Your task to perform on an android device: check data usage Image 0: 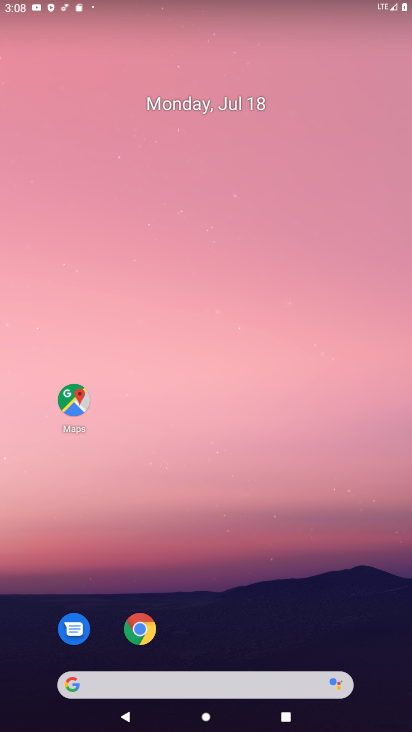
Step 0: drag from (192, 634) to (196, 0)
Your task to perform on an android device: check data usage Image 1: 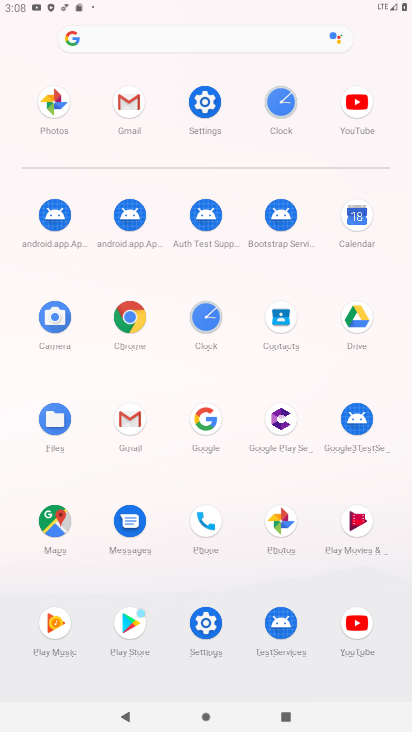
Step 1: click (216, 631)
Your task to perform on an android device: check data usage Image 2: 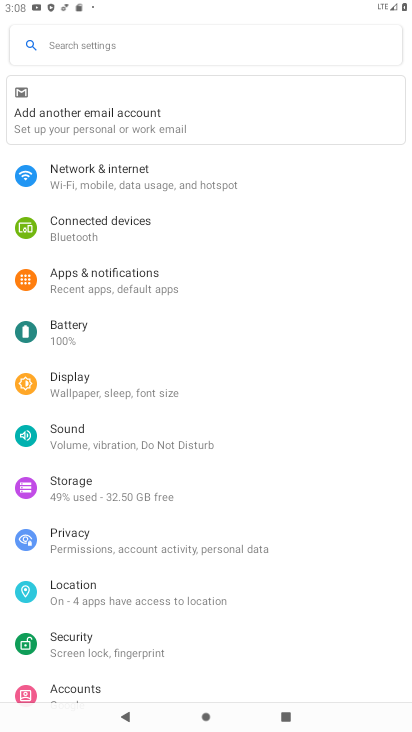
Step 2: click (124, 182)
Your task to perform on an android device: check data usage Image 3: 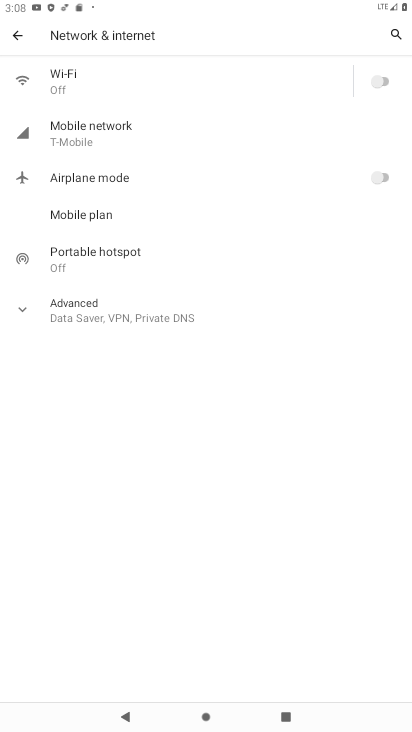
Step 3: click (113, 130)
Your task to perform on an android device: check data usage Image 4: 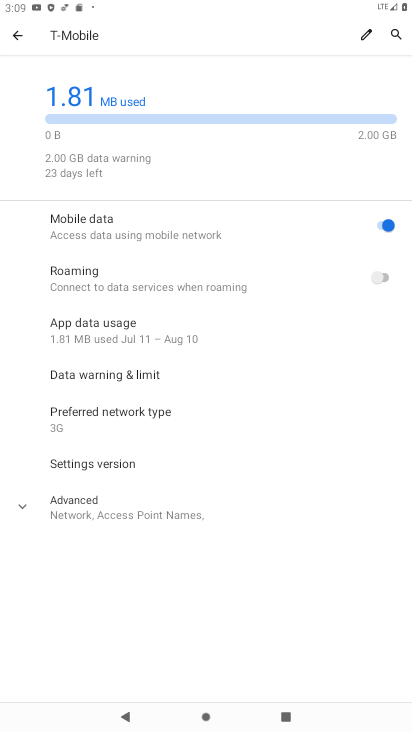
Step 4: click (130, 333)
Your task to perform on an android device: check data usage Image 5: 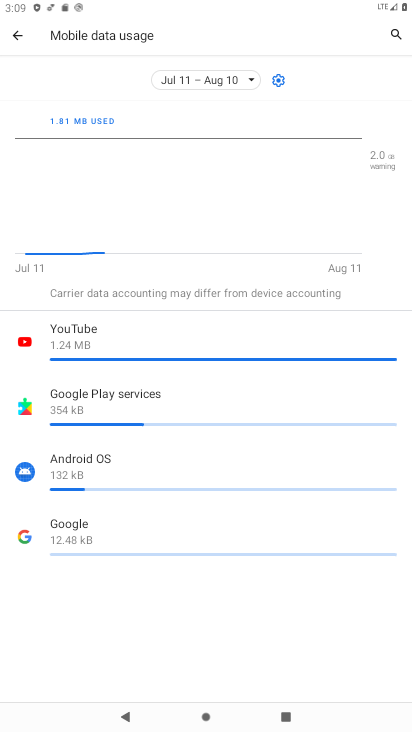
Step 5: task complete